Your task to perform on an android device: Search for macbook pro 15 inch on ebay.com, select the first entry, and add it to the cart. Image 0: 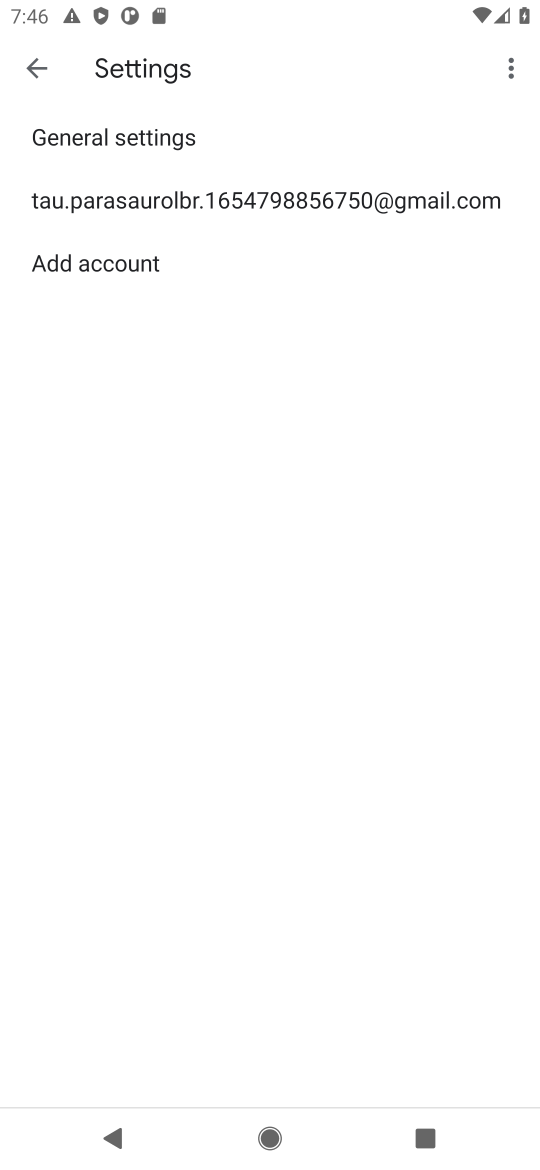
Step 0: press home button
Your task to perform on an android device: Search for macbook pro 15 inch on ebay.com, select the first entry, and add it to the cart. Image 1: 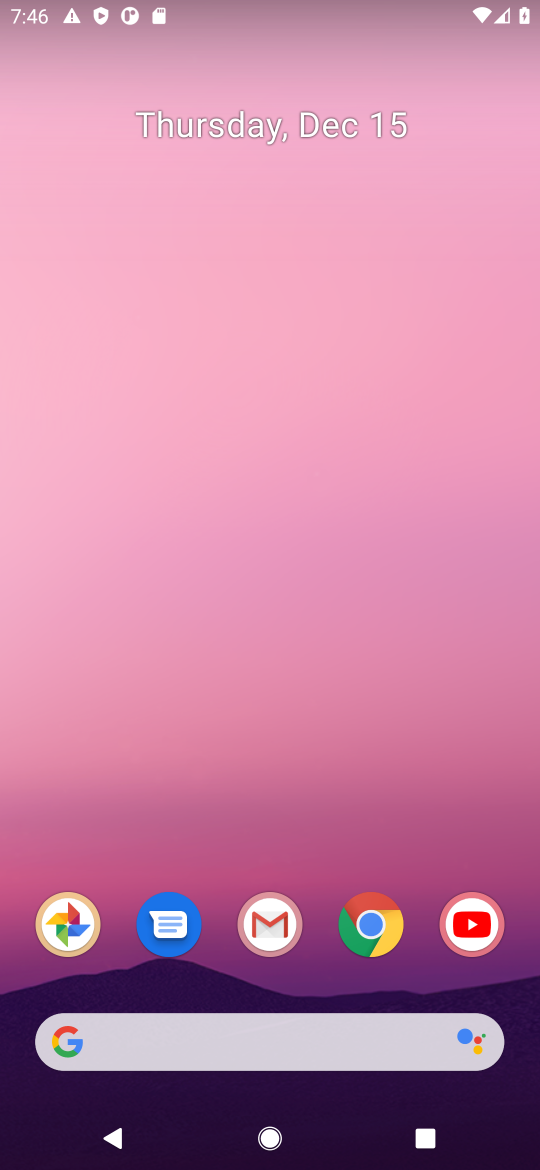
Step 1: click (379, 932)
Your task to perform on an android device: Search for macbook pro 15 inch on ebay.com, select the first entry, and add it to the cart. Image 2: 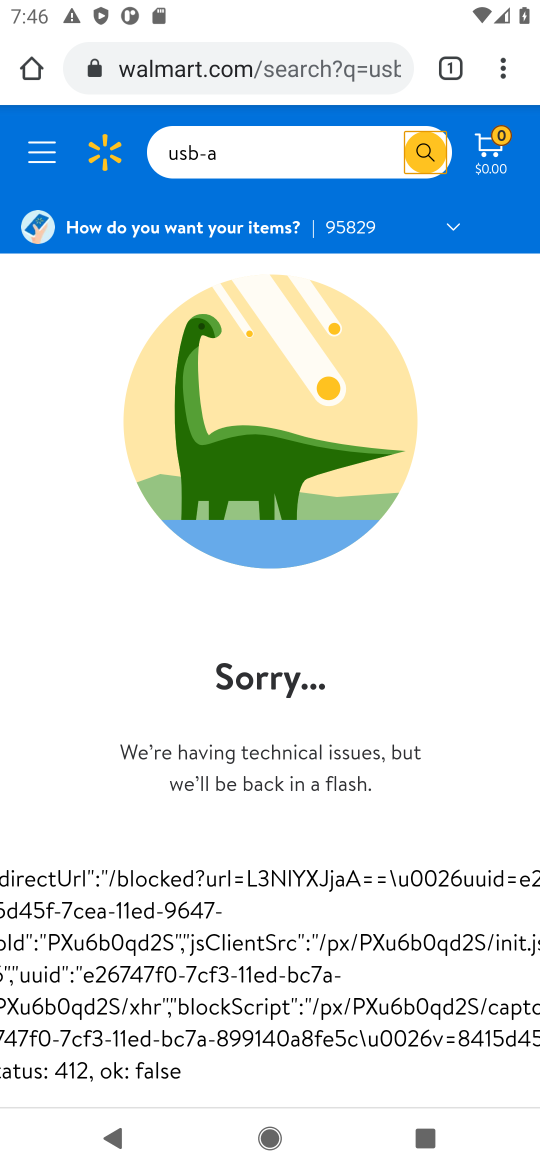
Step 2: click (218, 79)
Your task to perform on an android device: Search for macbook pro 15 inch on ebay.com, select the first entry, and add it to the cart. Image 3: 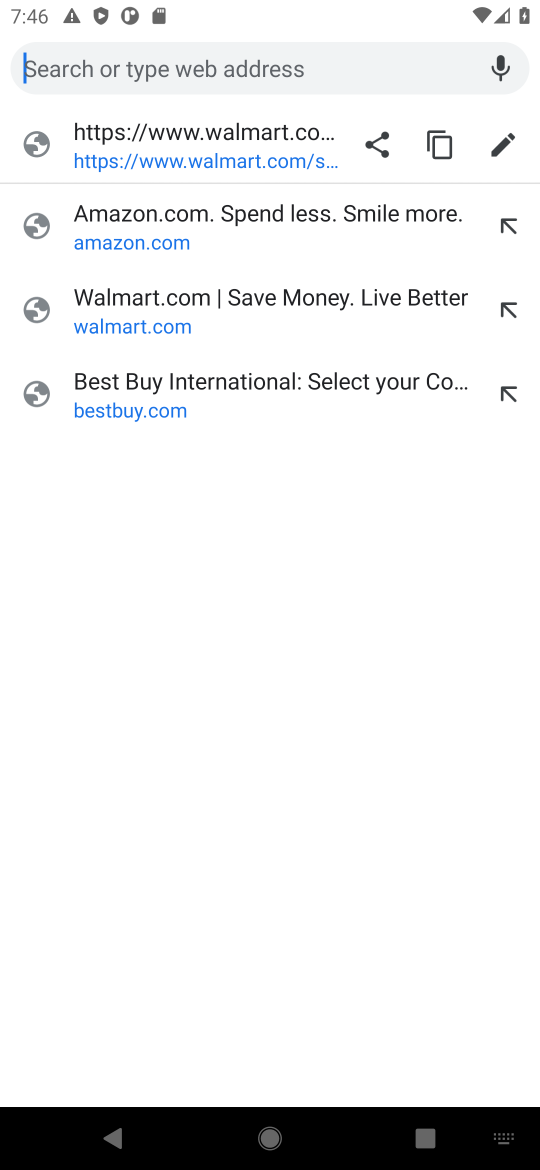
Step 3: type "ebay"
Your task to perform on an android device: Search for macbook pro 15 inch on ebay.com, select the first entry, and add it to the cart. Image 4: 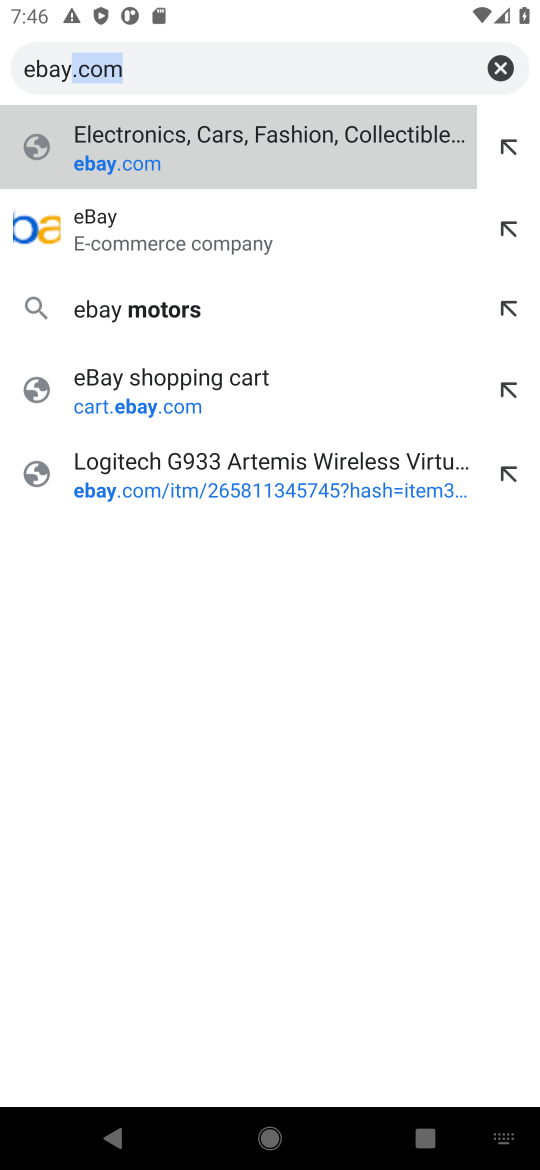
Step 4: click (114, 222)
Your task to perform on an android device: Search for macbook pro 15 inch on ebay.com, select the first entry, and add it to the cart. Image 5: 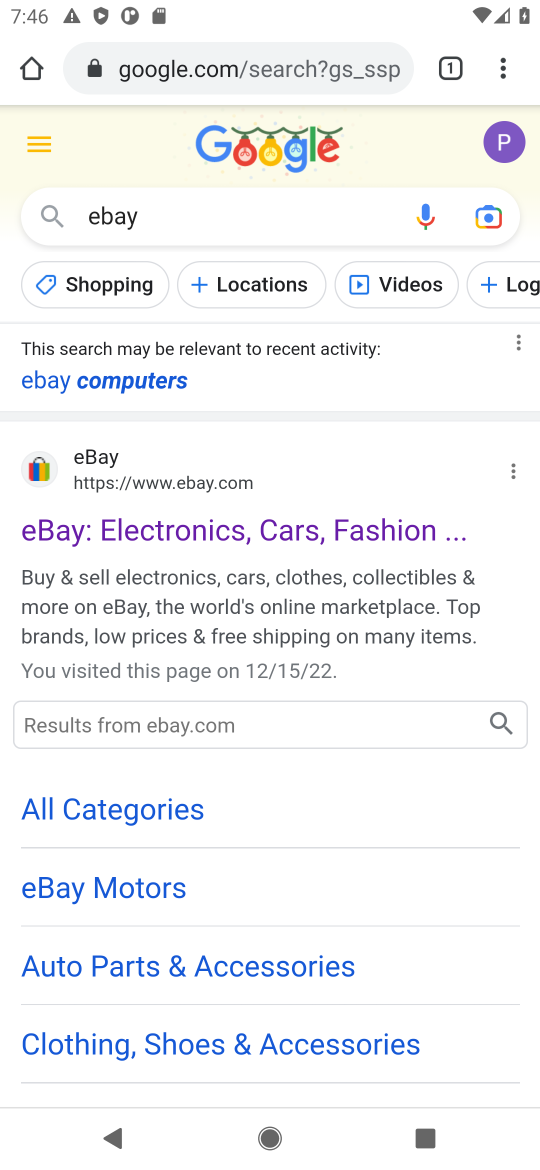
Step 5: click (230, 522)
Your task to perform on an android device: Search for macbook pro 15 inch on ebay.com, select the first entry, and add it to the cart. Image 6: 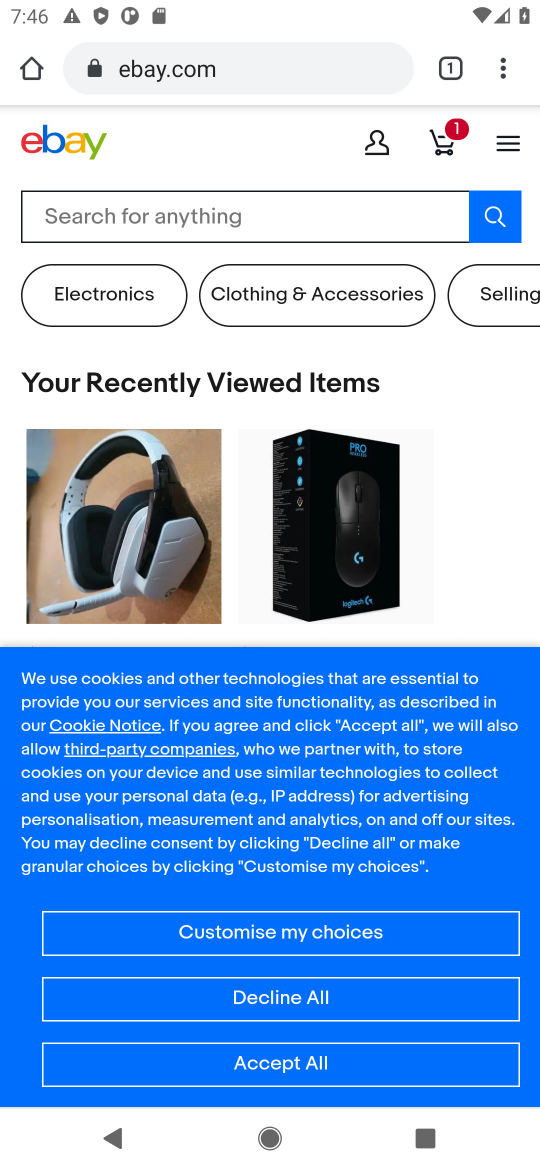
Step 6: click (148, 210)
Your task to perform on an android device: Search for macbook pro 15 inch on ebay.com, select the first entry, and add it to the cart. Image 7: 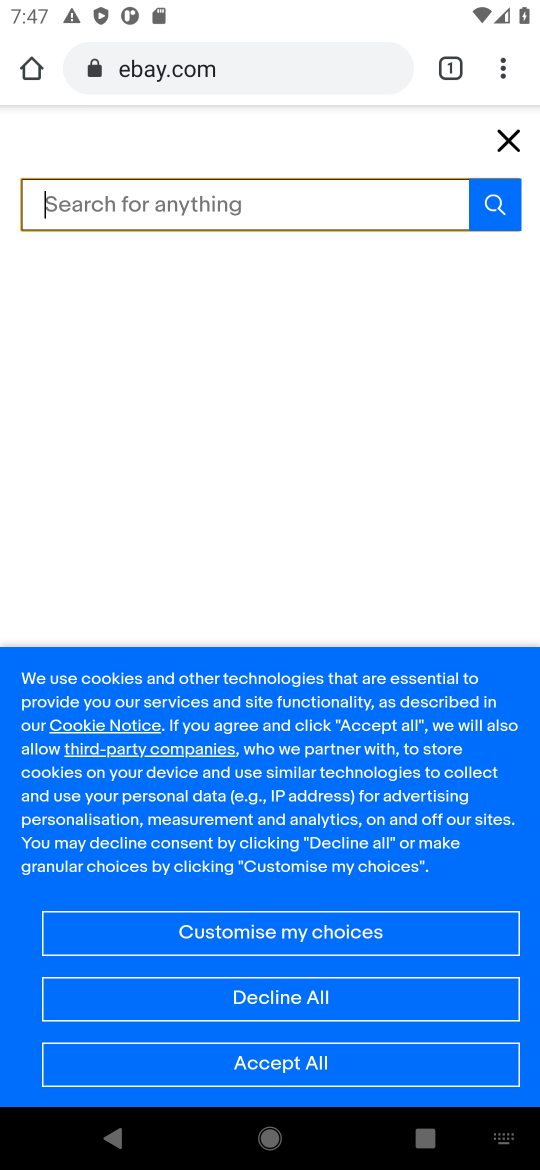
Step 7: type "macbook pro 15"
Your task to perform on an android device: Search for macbook pro 15 inch on ebay.com, select the first entry, and add it to the cart. Image 8: 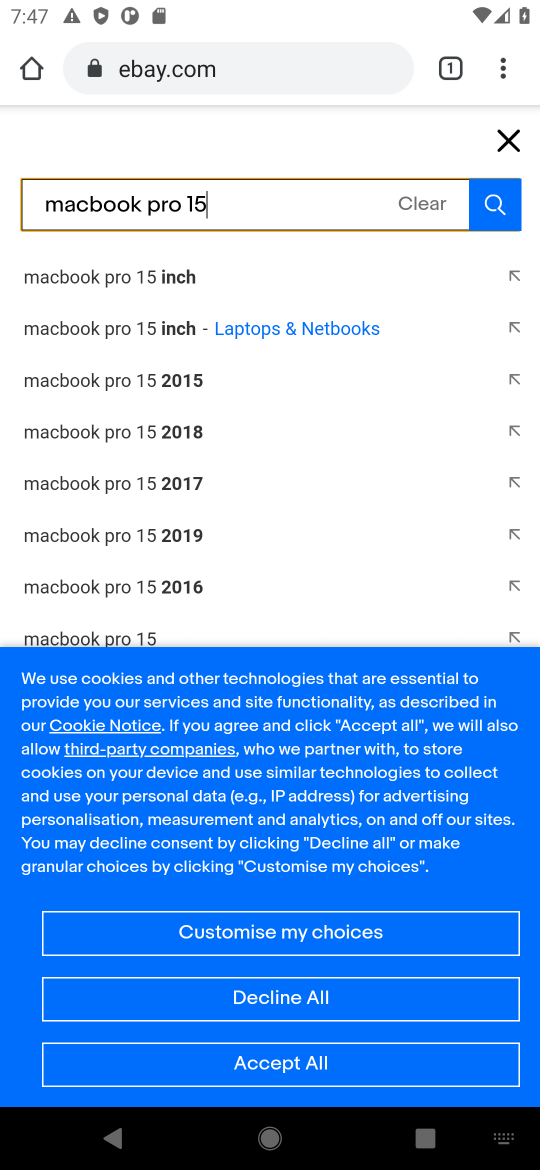
Step 8: click (119, 271)
Your task to perform on an android device: Search for macbook pro 15 inch on ebay.com, select the first entry, and add it to the cart. Image 9: 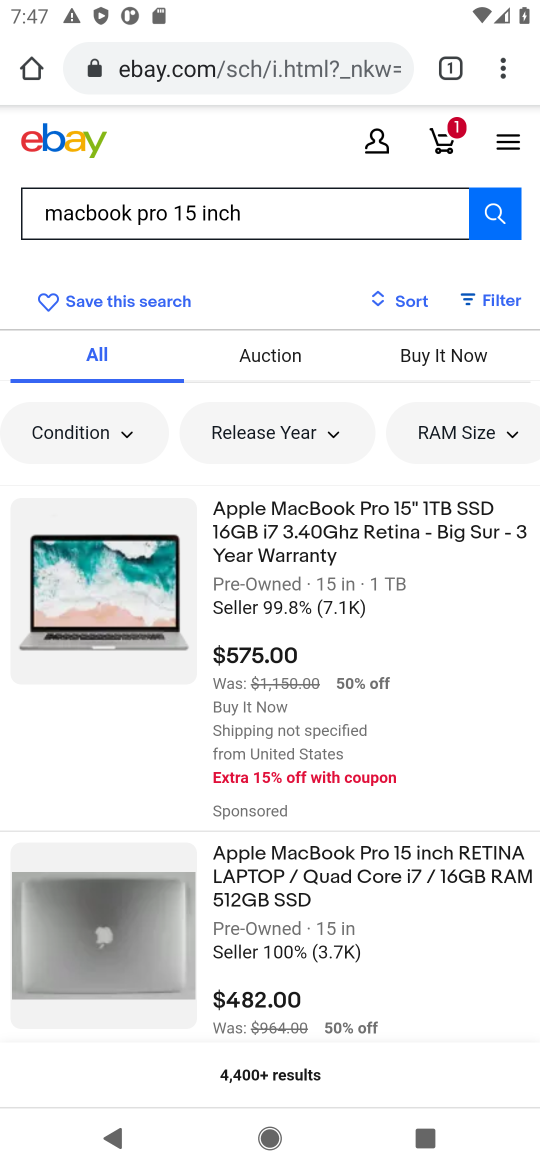
Step 9: click (309, 557)
Your task to perform on an android device: Search for macbook pro 15 inch on ebay.com, select the first entry, and add it to the cart. Image 10: 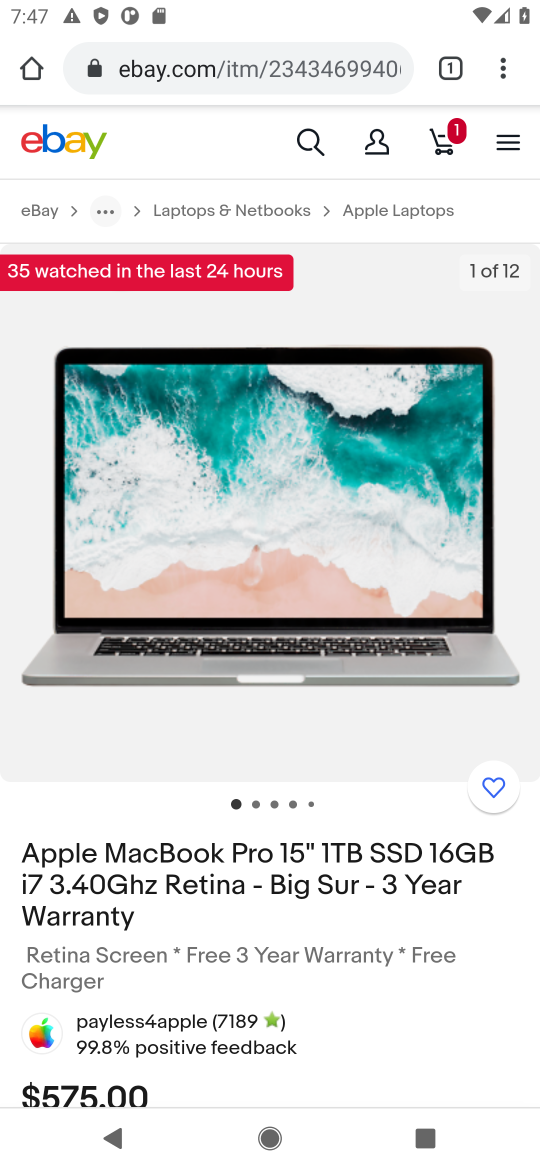
Step 10: drag from (343, 1045) to (474, 48)
Your task to perform on an android device: Search for macbook pro 15 inch on ebay.com, select the first entry, and add it to the cart. Image 11: 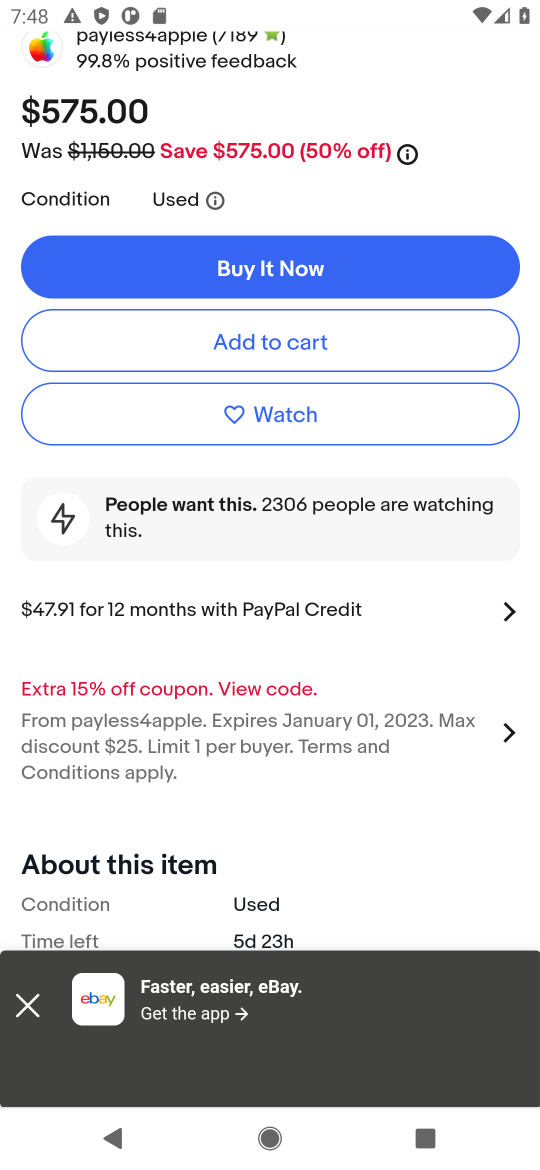
Step 11: click (262, 338)
Your task to perform on an android device: Search for macbook pro 15 inch on ebay.com, select the first entry, and add it to the cart. Image 12: 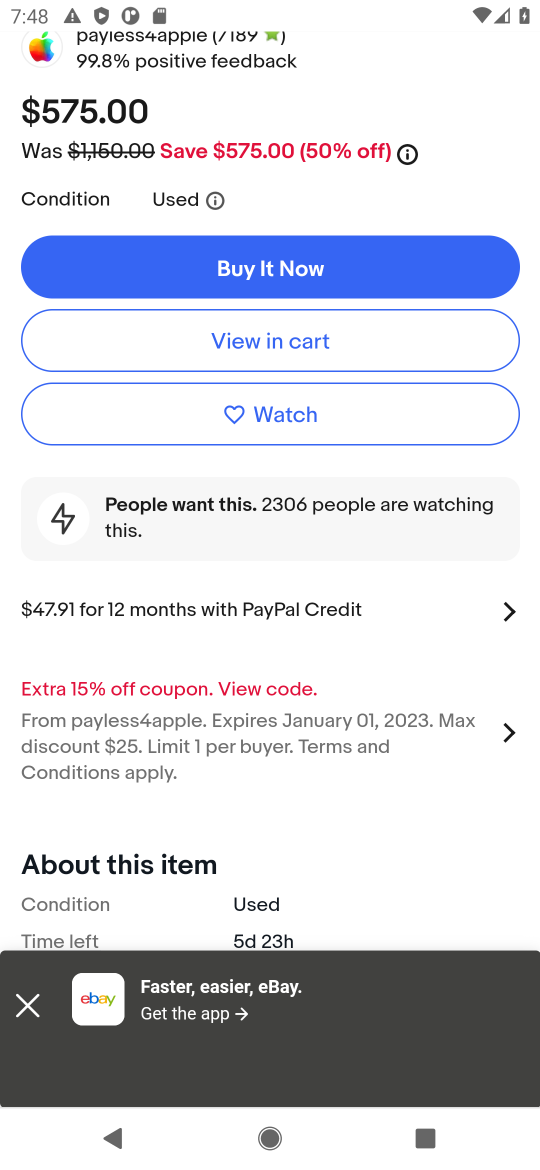
Step 12: task complete